Your task to perform on an android device: Go to location settings Image 0: 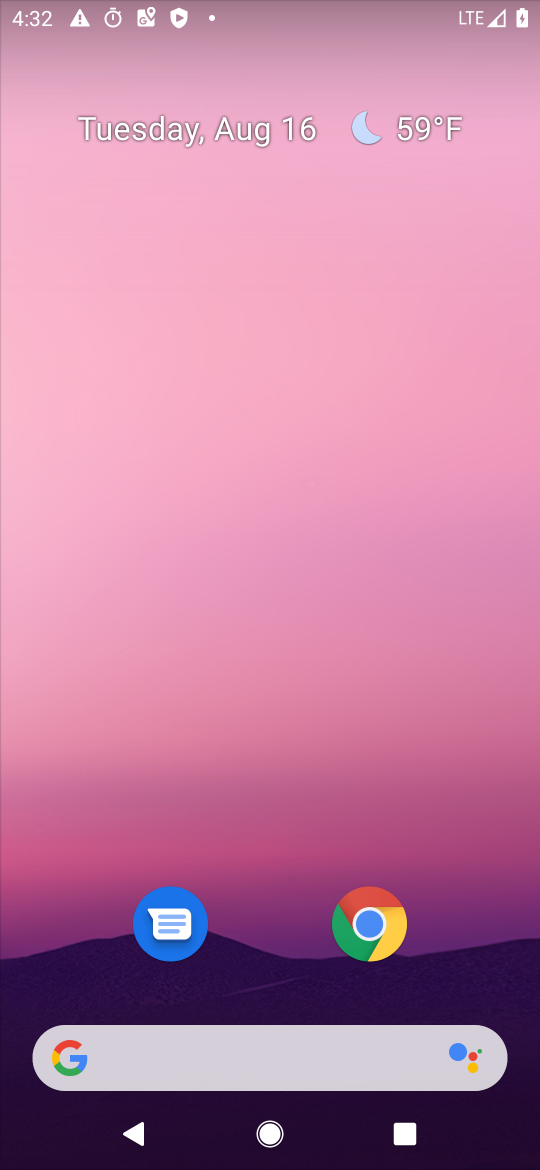
Step 0: drag from (257, 956) to (389, 4)
Your task to perform on an android device: Go to location settings Image 1: 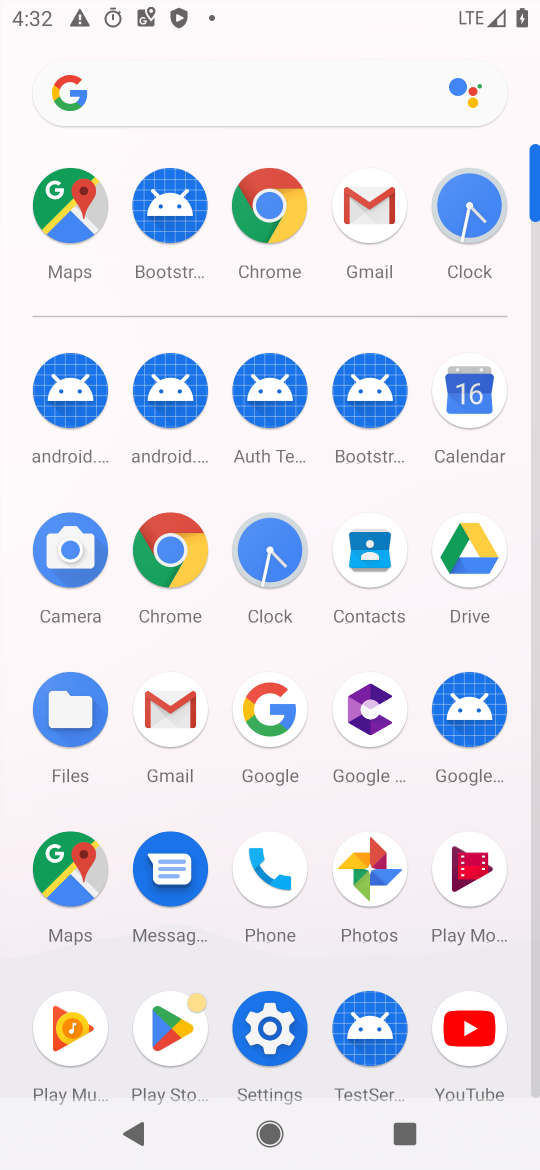
Step 1: click (271, 1022)
Your task to perform on an android device: Go to location settings Image 2: 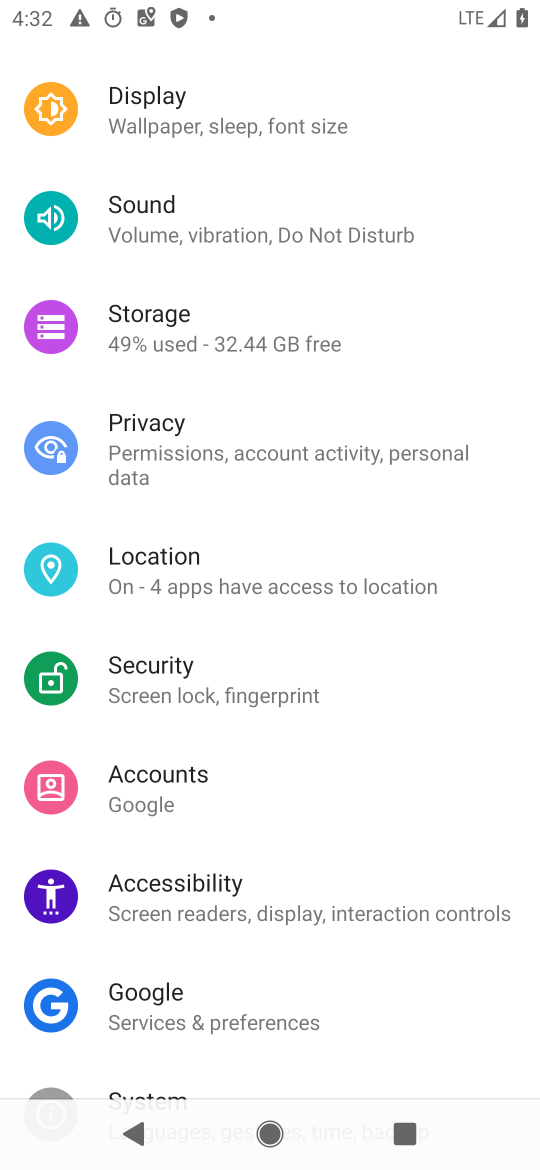
Step 2: click (151, 579)
Your task to perform on an android device: Go to location settings Image 3: 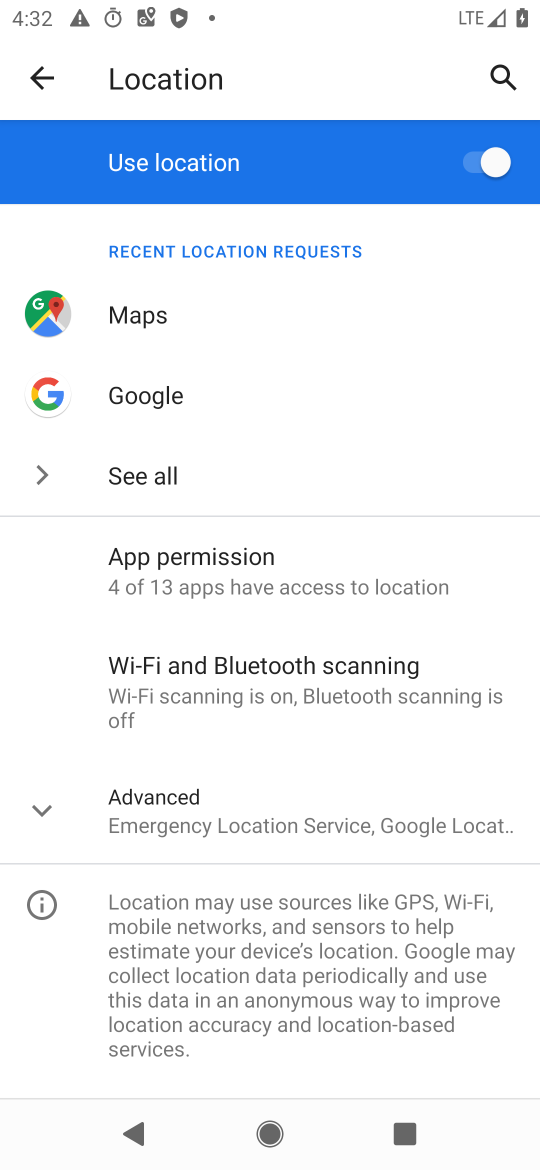
Step 3: task complete